Your task to perform on an android device: Open sound settings Image 0: 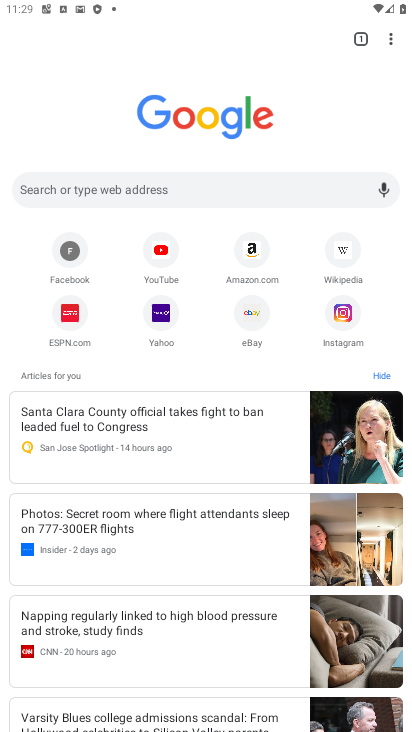
Step 0: press back button
Your task to perform on an android device: Open sound settings Image 1: 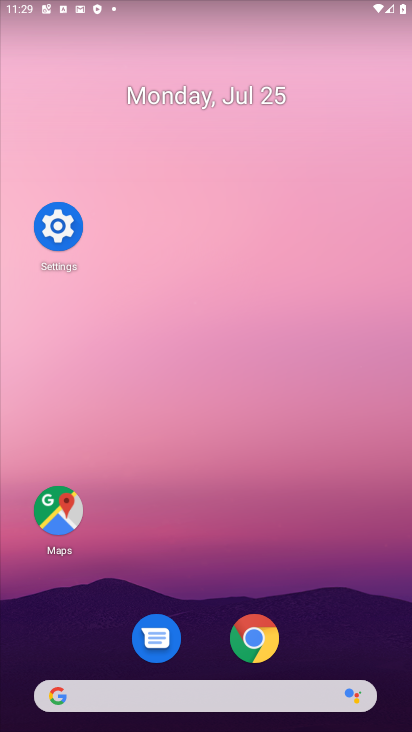
Step 1: click (78, 222)
Your task to perform on an android device: Open sound settings Image 2: 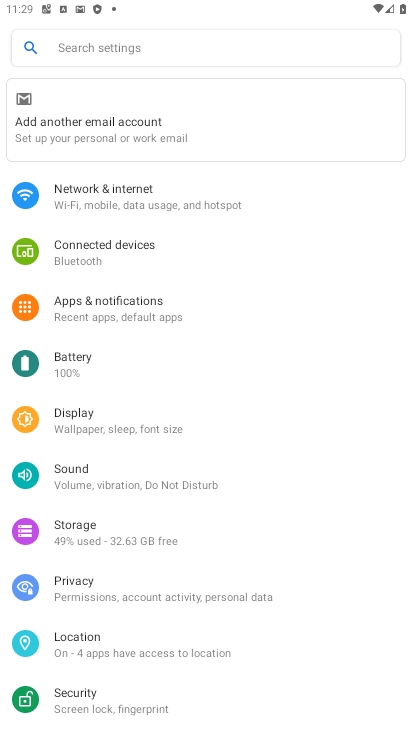
Step 2: click (167, 483)
Your task to perform on an android device: Open sound settings Image 3: 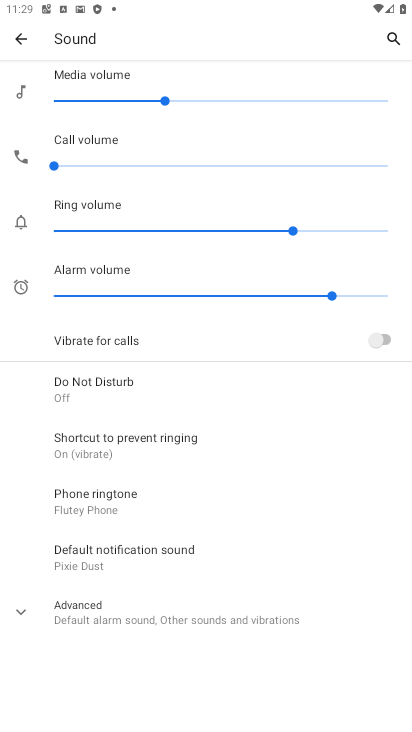
Step 3: task complete